Your task to perform on an android device: Go to Wikipedia Image 0: 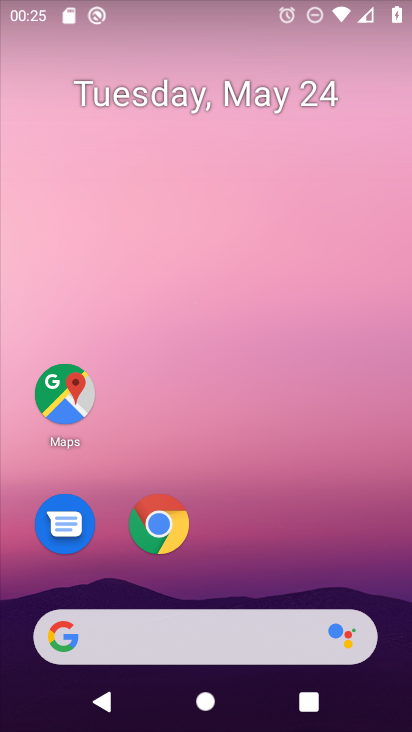
Step 0: click (158, 524)
Your task to perform on an android device: Go to Wikipedia Image 1: 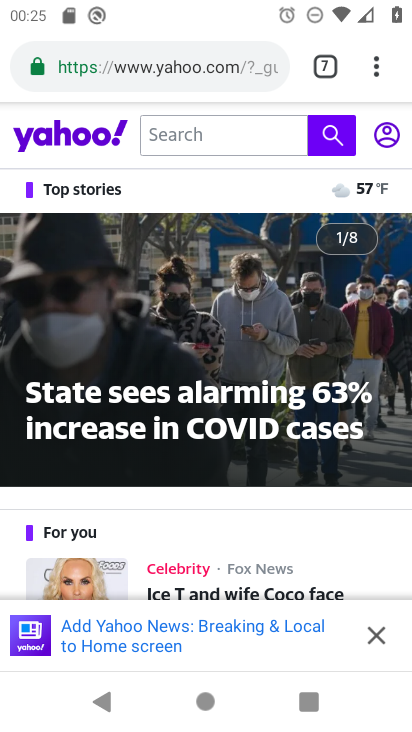
Step 1: click (321, 65)
Your task to perform on an android device: Go to Wikipedia Image 2: 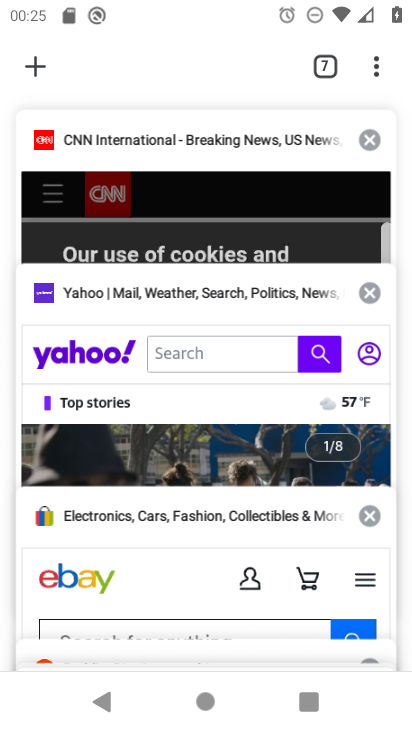
Step 2: drag from (177, 211) to (201, 510)
Your task to perform on an android device: Go to Wikipedia Image 3: 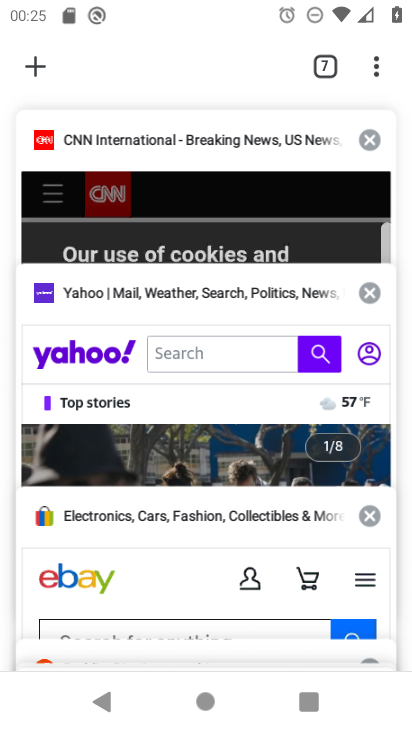
Step 3: drag from (155, 559) to (200, 257)
Your task to perform on an android device: Go to Wikipedia Image 4: 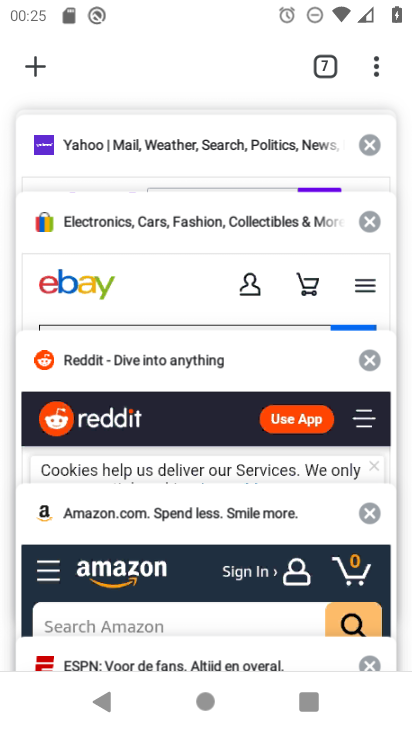
Step 4: drag from (182, 531) to (189, 254)
Your task to perform on an android device: Go to Wikipedia Image 5: 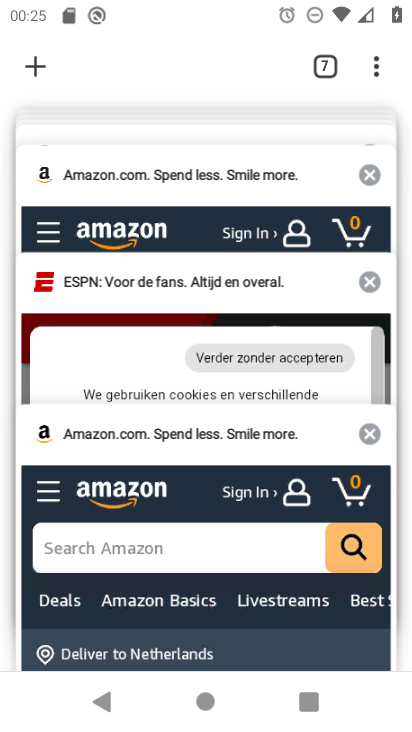
Step 5: drag from (116, 553) to (161, 260)
Your task to perform on an android device: Go to Wikipedia Image 6: 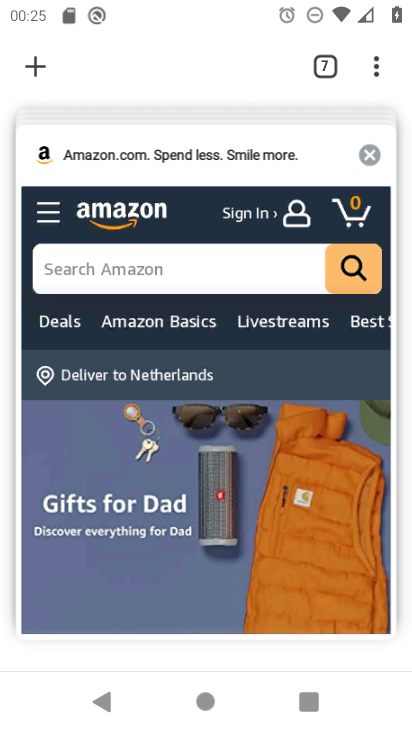
Step 6: click (28, 55)
Your task to perform on an android device: Go to Wikipedia Image 7: 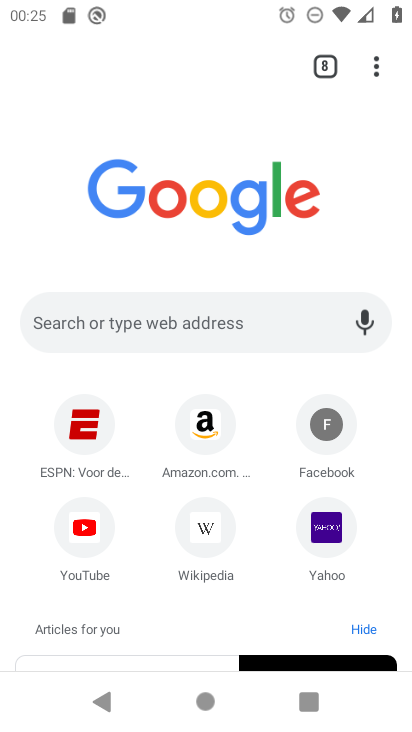
Step 7: click (174, 323)
Your task to perform on an android device: Go to Wikipedia Image 8: 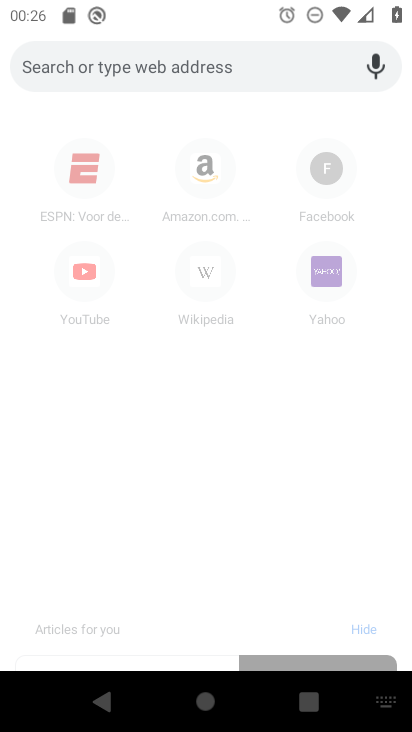
Step 8: type "Wikipedia"
Your task to perform on an android device: Go to Wikipedia Image 9: 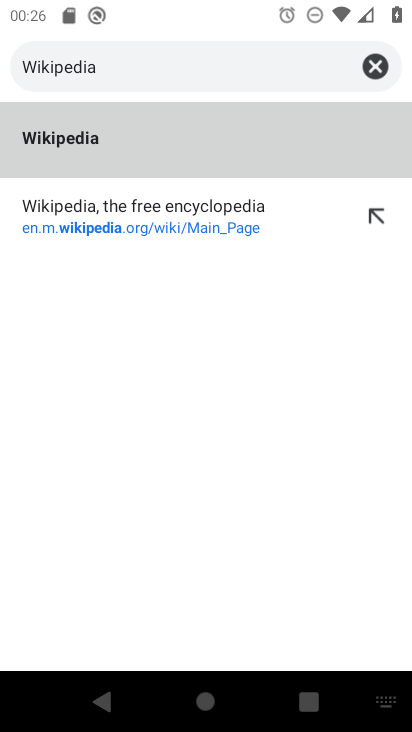
Step 9: click (90, 148)
Your task to perform on an android device: Go to Wikipedia Image 10: 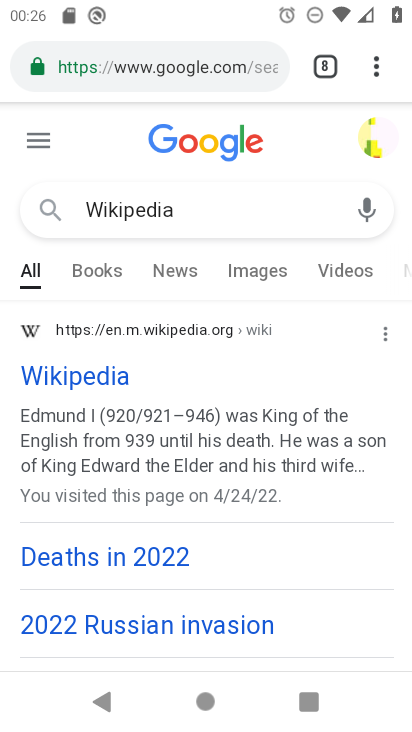
Step 10: click (68, 374)
Your task to perform on an android device: Go to Wikipedia Image 11: 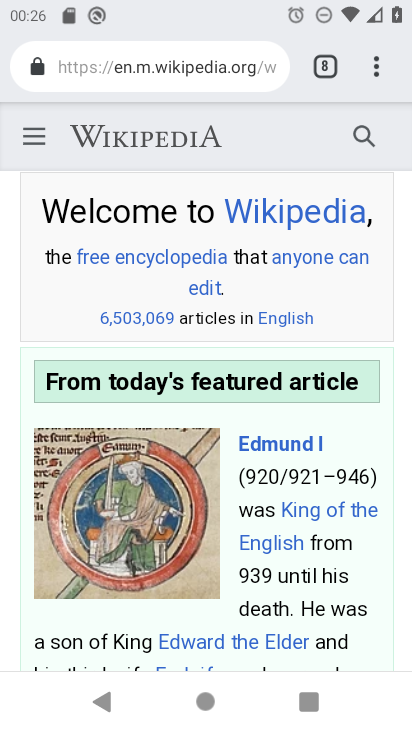
Step 11: task complete